Your task to perform on an android device: What's the weather today? Image 0: 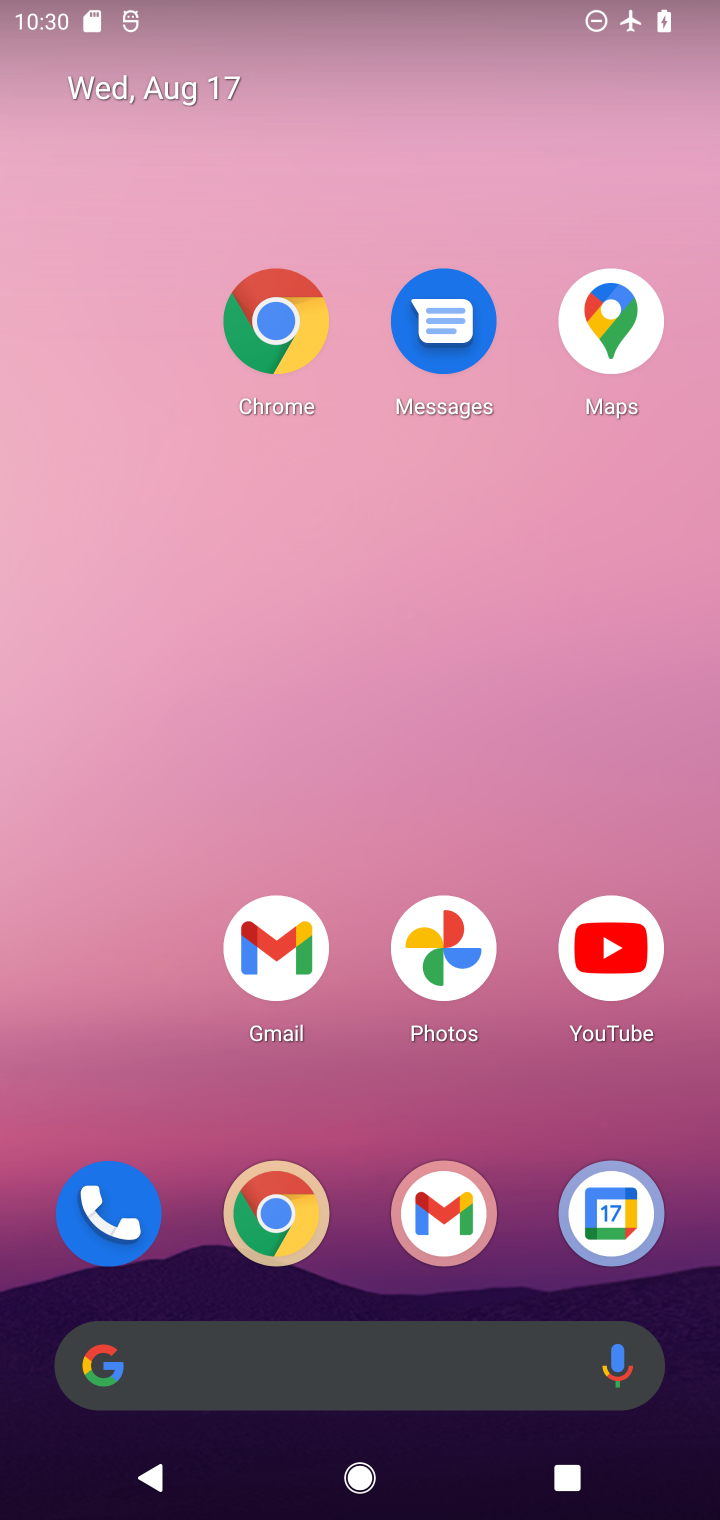
Step 0: drag from (334, 1288) to (309, 148)
Your task to perform on an android device: What's the weather today? Image 1: 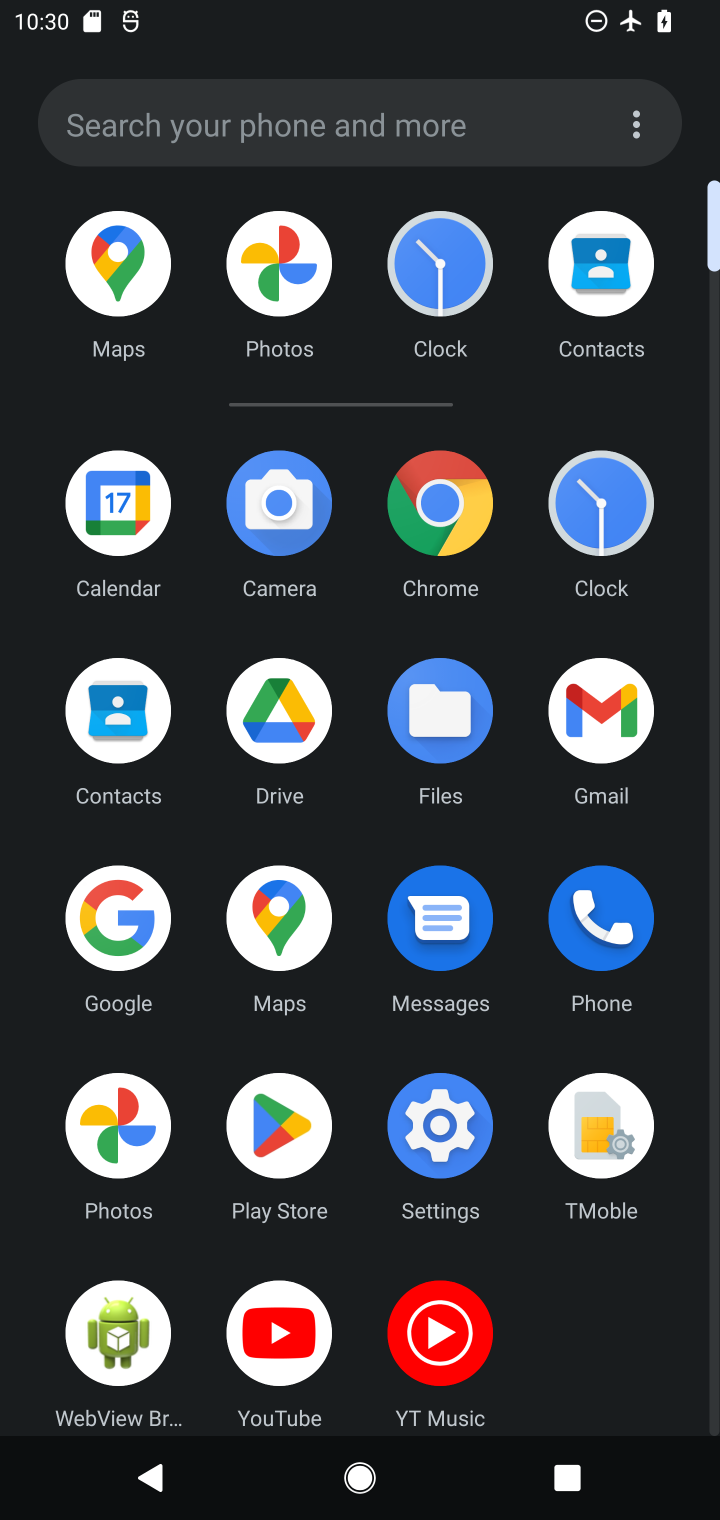
Step 1: click (278, 133)
Your task to perform on an android device: What's the weather today? Image 2: 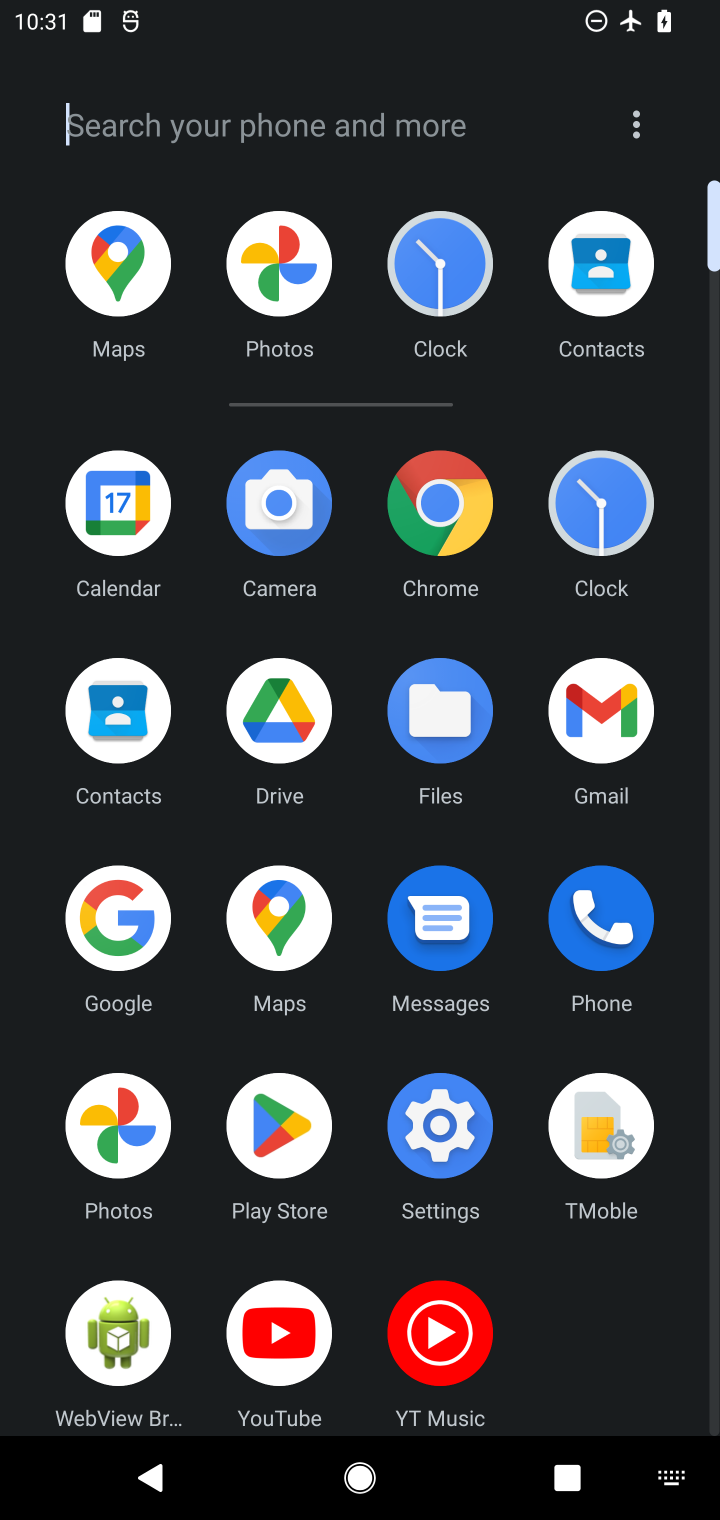
Step 2: type "weather"
Your task to perform on an android device: What's the weather today? Image 3: 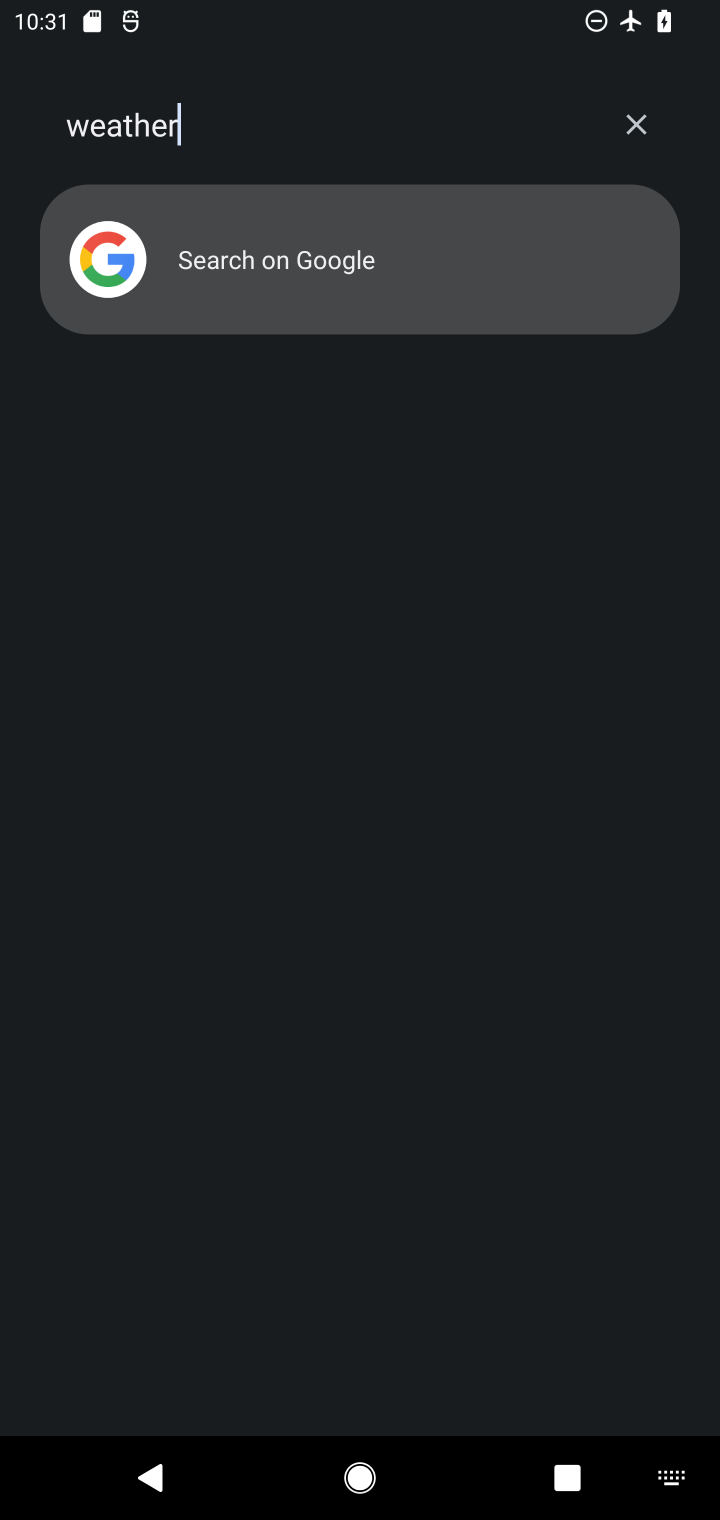
Step 3: click (414, 306)
Your task to perform on an android device: What's the weather today? Image 4: 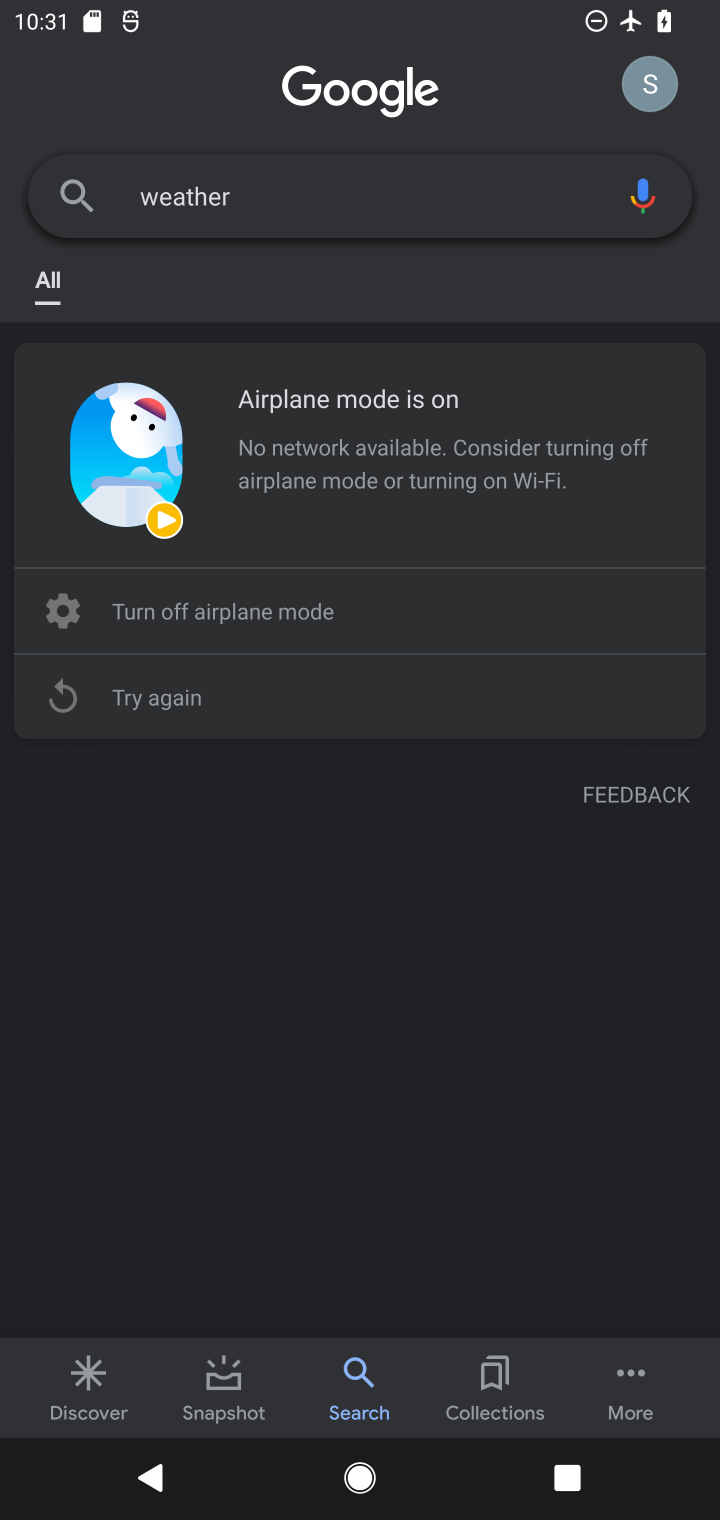
Step 4: task complete